Your task to perform on an android device: Show me popular videos on Youtube Image 0: 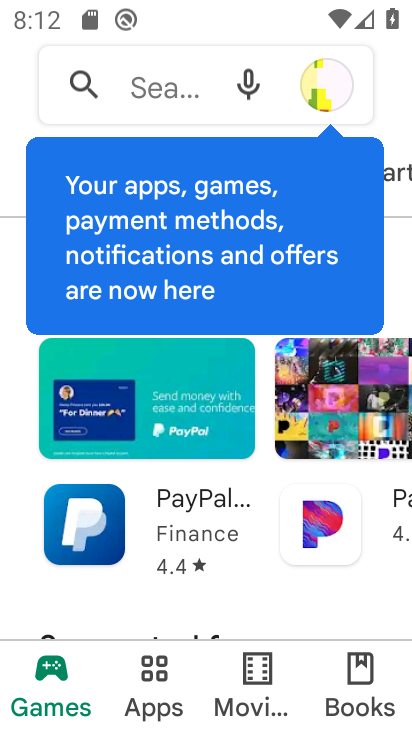
Step 0: press back button
Your task to perform on an android device: Show me popular videos on Youtube Image 1: 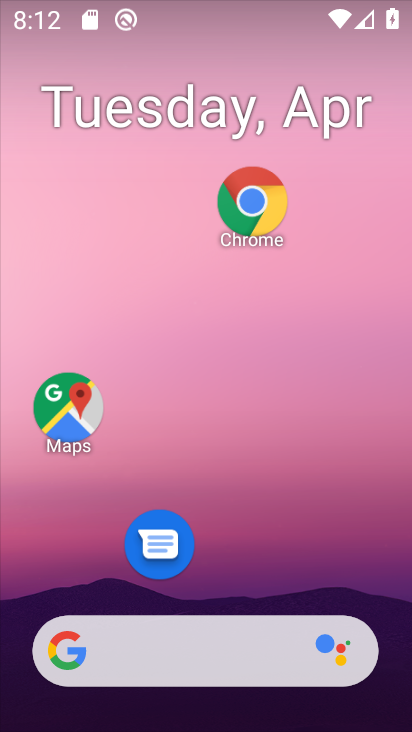
Step 1: drag from (258, 563) to (301, 53)
Your task to perform on an android device: Show me popular videos on Youtube Image 2: 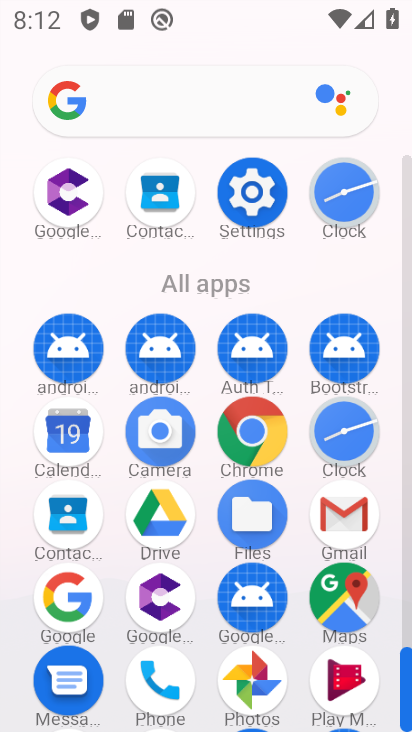
Step 2: drag from (183, 596) to (279, 97)
Your task to perform on an android device: Show me popular videos on Youtube Image 3: 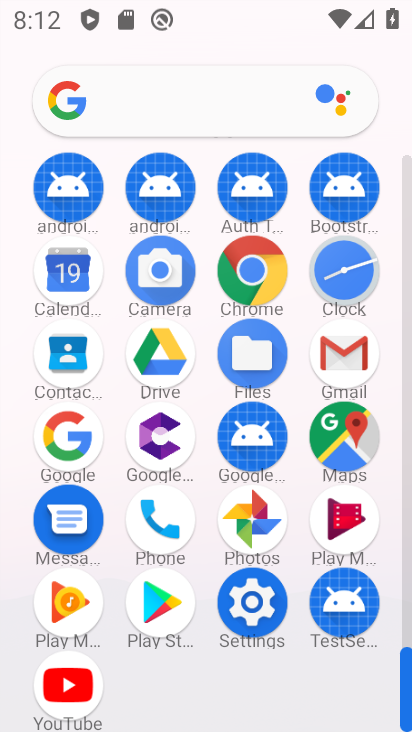
Step 3: click (72, 669)
Your task to perform on an android device: Show me popular videos on Youtube Image 4: 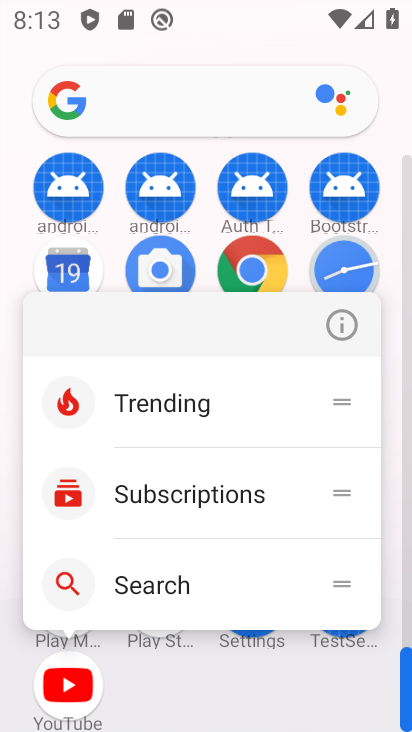
Step 4: click (67, 679)
Your task to perform on an android device: Show me popular videos on Youtube Image 5: 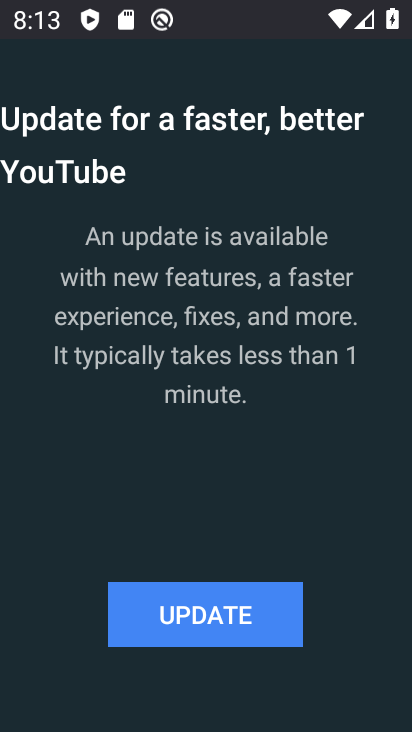
Step 5: click (178, 627)
Your task to perform on an android device: Show me popular videos on Youtube Image 6: 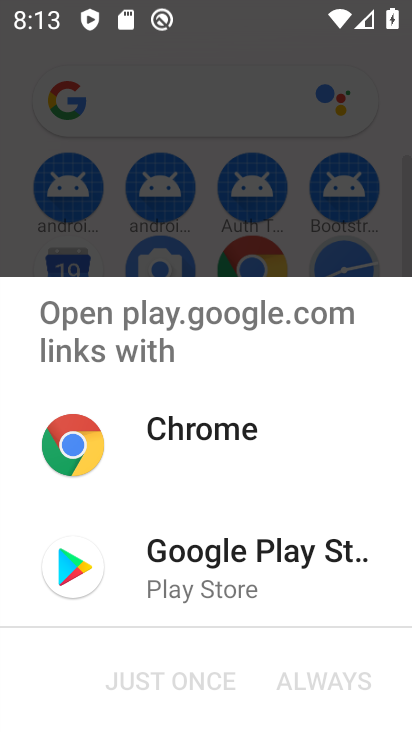
Step 6: click (226, 562)
Your task to perform on an android device: Show me popular videos on Youtube Image 7: 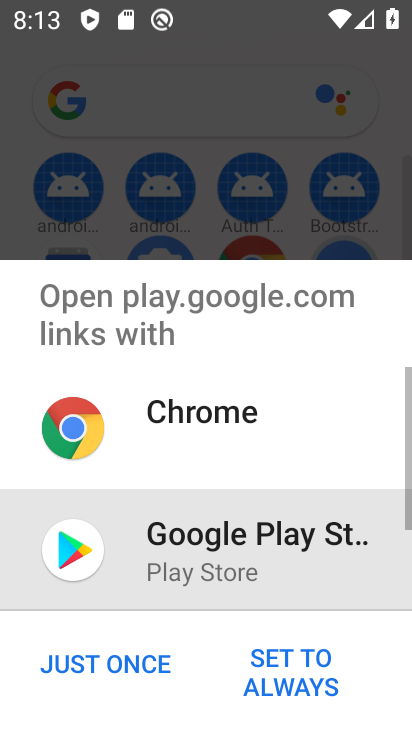
Step 7: click (114, 650)
Your task to perform on an android device: Show me popular videos on Youtube Image 8: 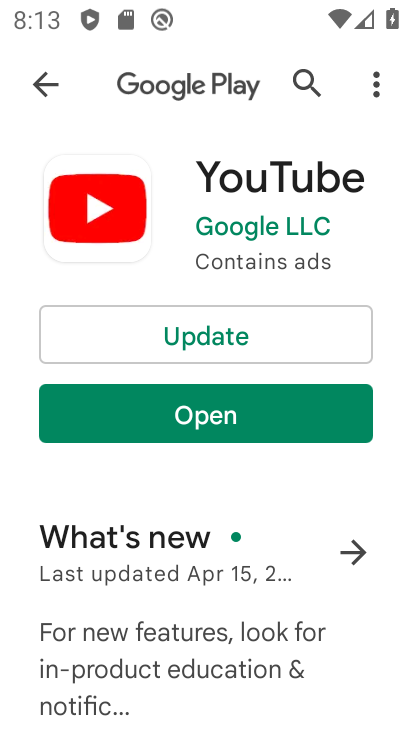
Step 8: click (213, 334)
Your task to perform on an android device: Show me popular videos on Youtube Image 9: 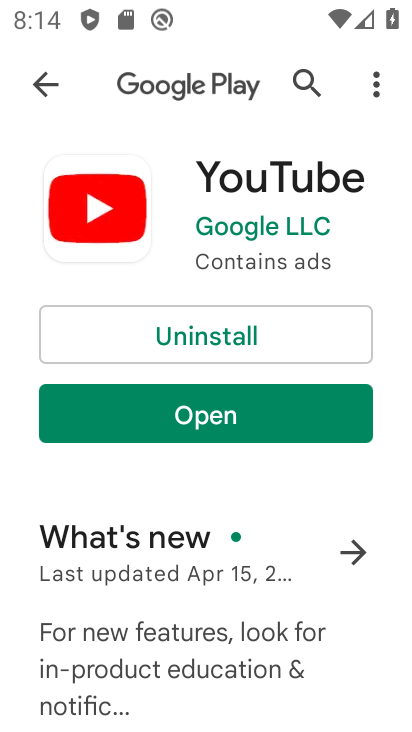
Step 9: click (220, 424)
Your task to perform on an android device: Show me popular videos on Youtube Image 10: 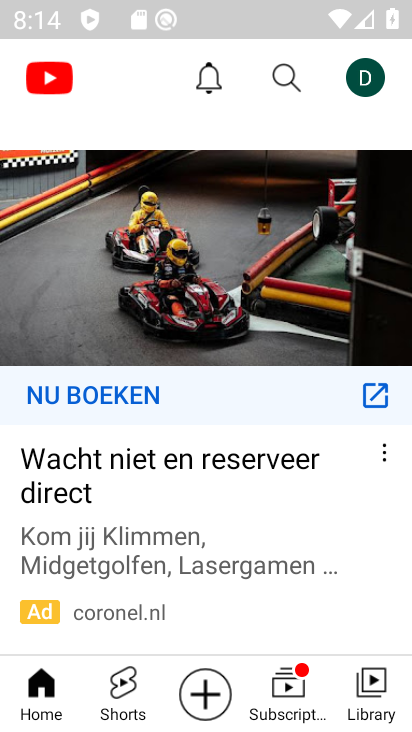
Step 10: click (135, 683)
Your task to perform on an android device: Show me popular videos on Youtube Image 11: 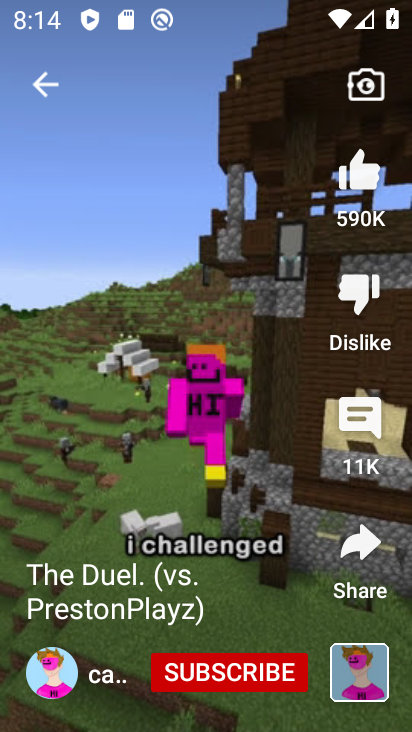
Step 11: click (43, 75)
Your task to perform on an android device: Show me popular videos on Youtube Image 12: 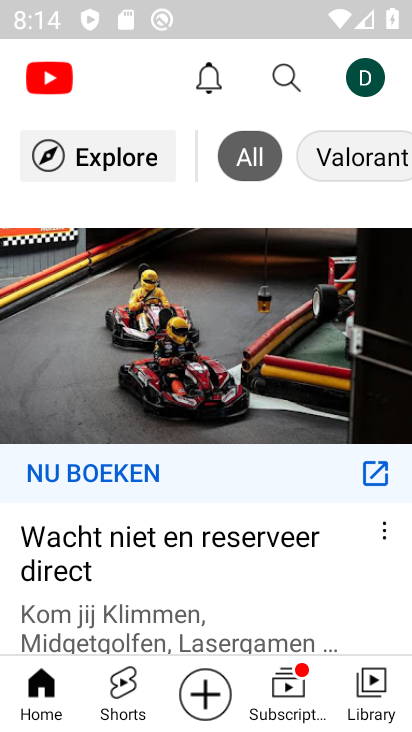
Step 12: click (139, 155)
Your task to perform on an android device: Show me popular videos on Youtube Image 13: 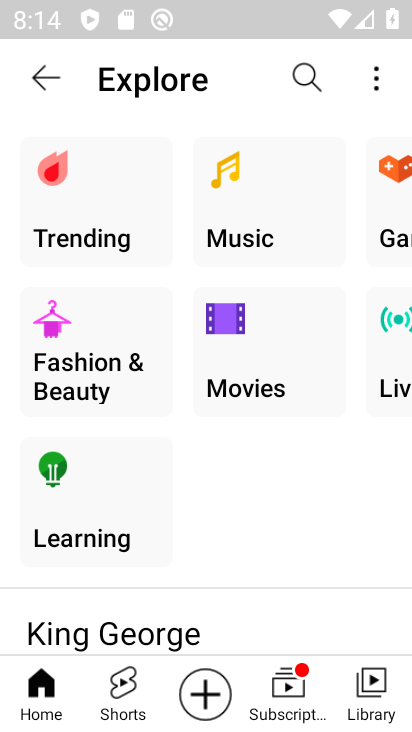
Step 13: click (37, 188)
Your task to perform on an android device: Show me popular videos on Youtube Image 14: 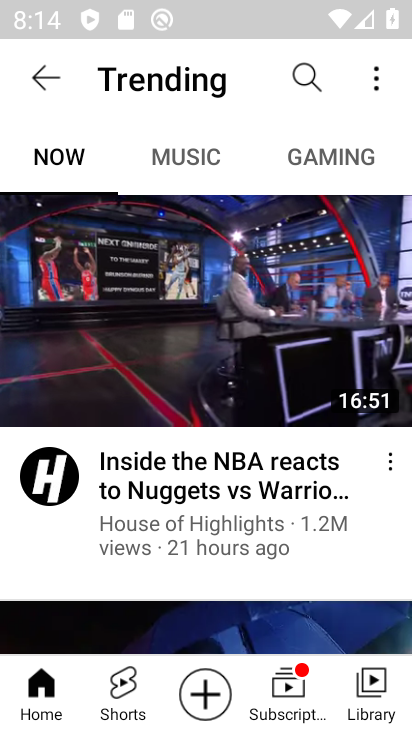
Step 14: task complete